Your task to perform on an android device: Play the last video I watched on Youtube Image 0: 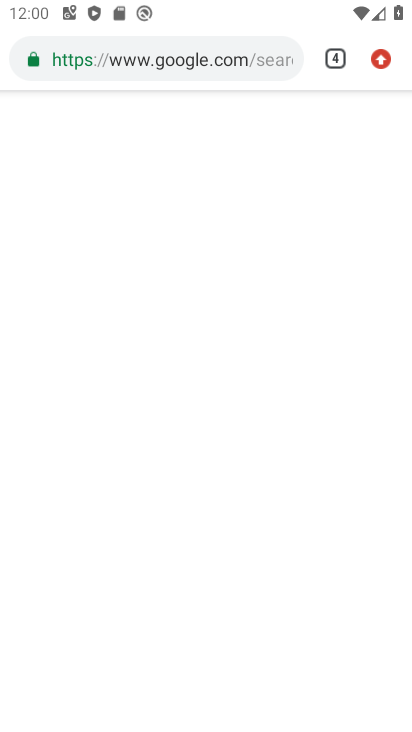
Step 0: press home button
Your task to perform on an android device: Play the last video I watched on Youtube Image 1: 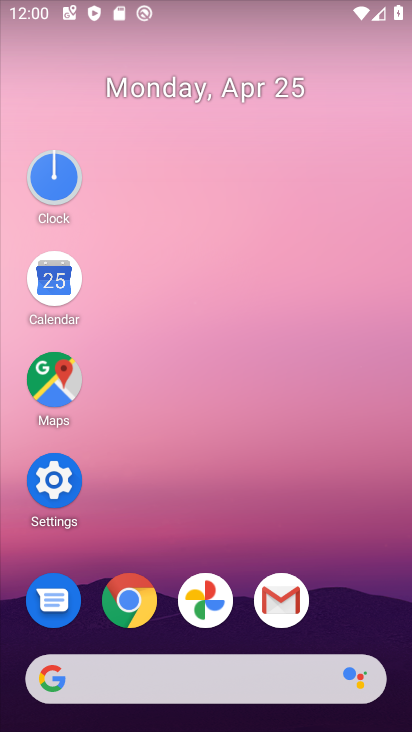
Step 1: drag from (344, 614) to (307, 27)
Your task to perform on an android device: Play the last video I watched on Youtube Image 2: 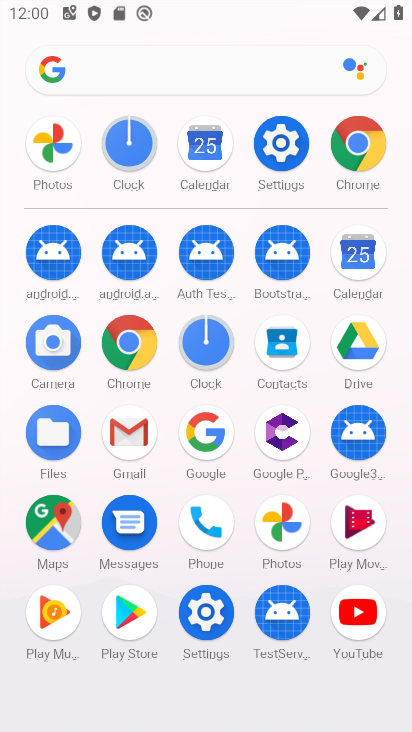
Step 2: click (355, 617)
Your task to perform on an android device: Play the last video I watched on Youtube Image 3: 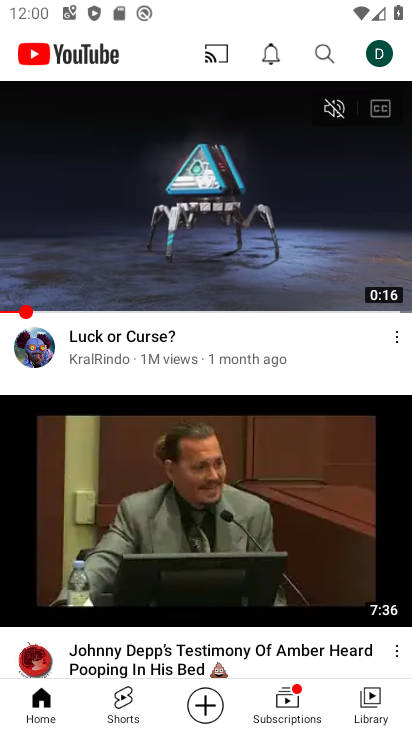
Step 3: click (368, 695)
Your task to perform on an android device: Play the last video I watched on Youtube Image 4: 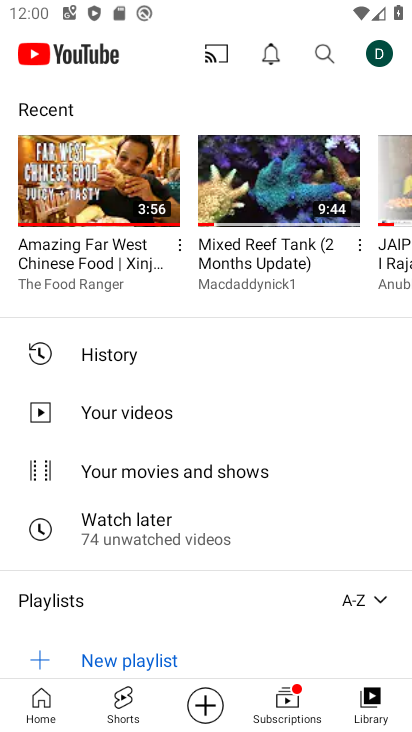
Step 4: click (114, 175)
Your task to perform on an android device: Play the last video I watched on Youtube Image 5: 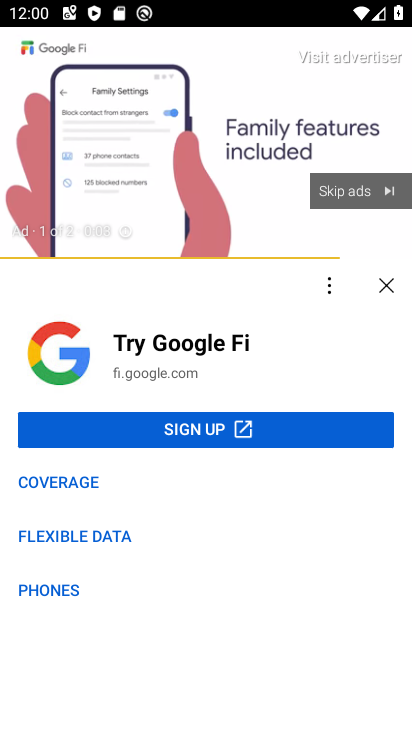
Step 5: click (338, 197)
Your task to perform on an android device: Play the last video I watched on Youtube Image 6: 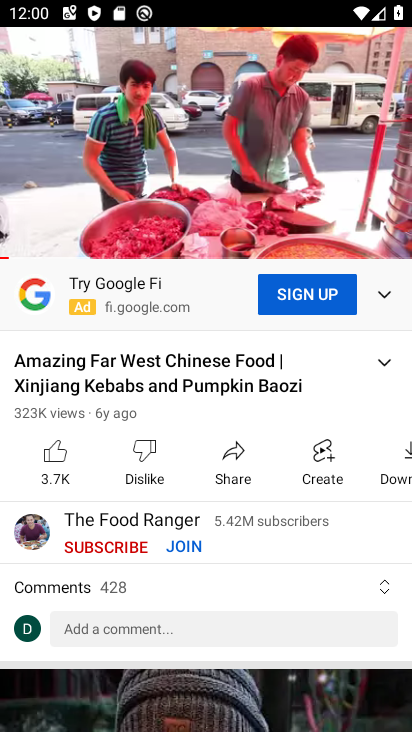
Step 6: task complete